Your task to perform on an android device: Play the last video I watched on Youtube Image 0: 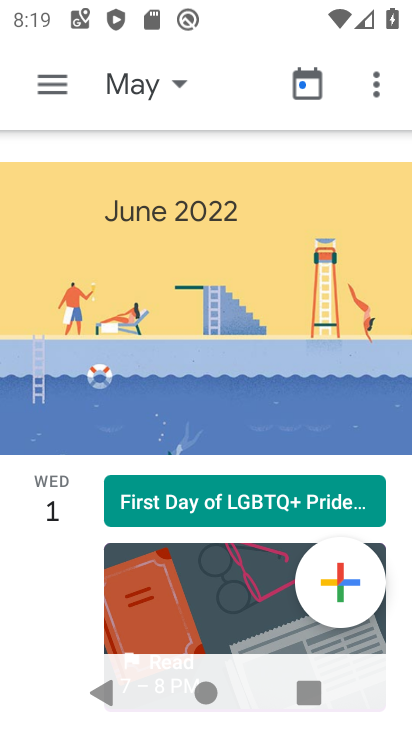
Step 0: press home button
Your task to perform on an android device: Play the last video I watched on Youtube Image 1: 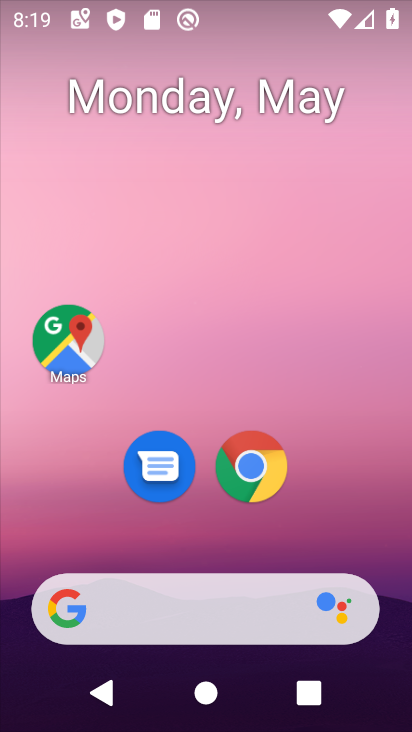
Step 1: drag from (245, 657) to (316, 150)
Your task to perform on an android device: Play the last video I watched on Youtube Image 2: 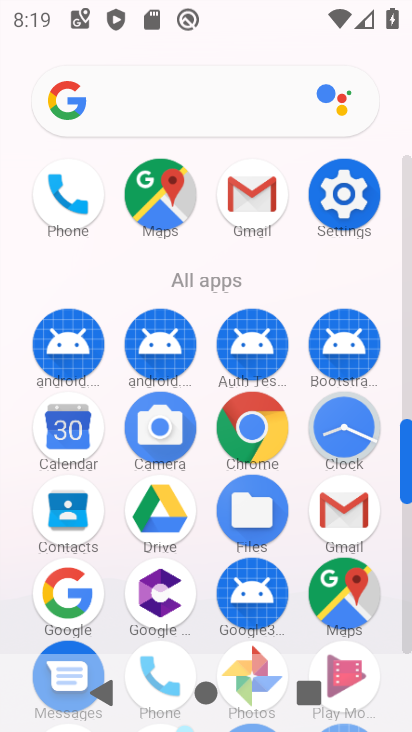
Step 2: drag from (115, 555) to (141, 225)
Your task to perform on an android device: Play the last video I watched on Youtube Image 3: 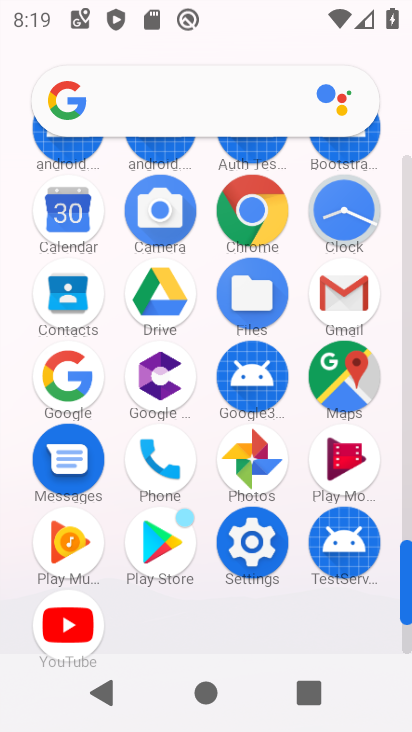
Step 3: click (77, 616)
Your task to perform on an android device: Play the last video I watched on Youtube Image 4: 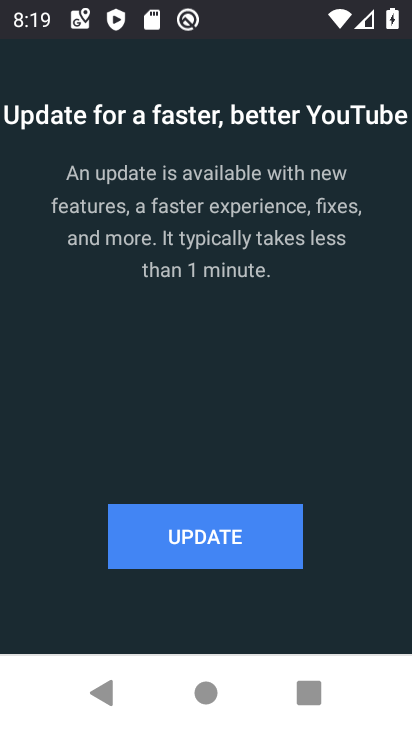
Step 4: click (177, 542)
Your task to perform on an android device: Play the last video I watched on Youtube Image 5: 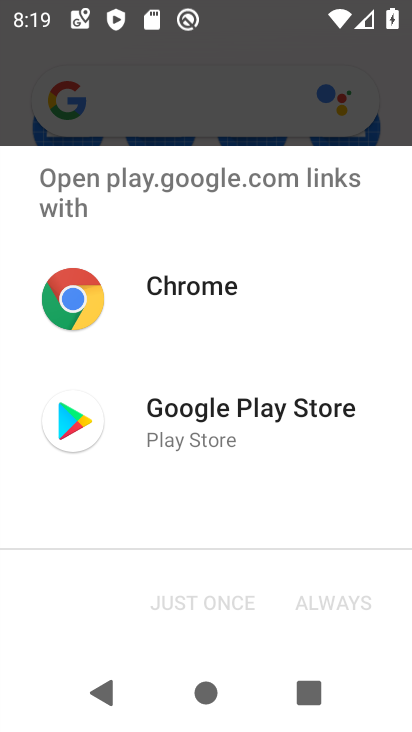
Step 5: click (190, 418)
Your task to perform on an android device: Play the last video I watched on Youtube Image 6: 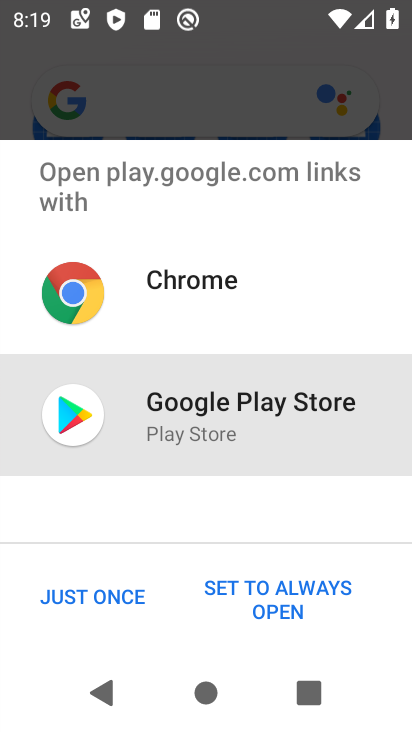
Step 6: click (93, 614)
Your task to perform on an android device: Play the last video I watched on Youtube Image 7: 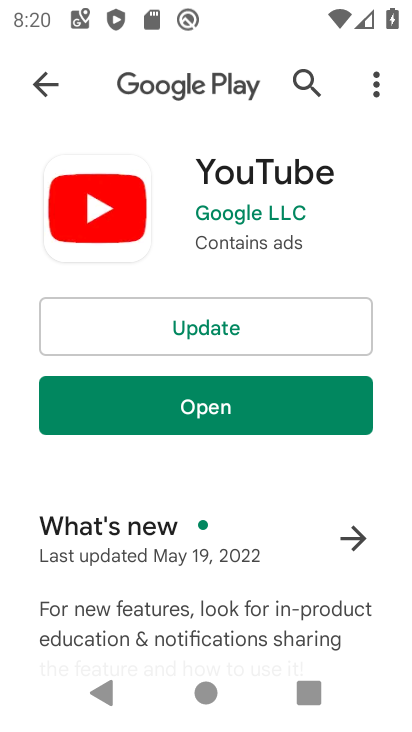
Step 7: click (193, 332)
Your task to perform on an android device: Play the last video I watched on Youtube Image 8: 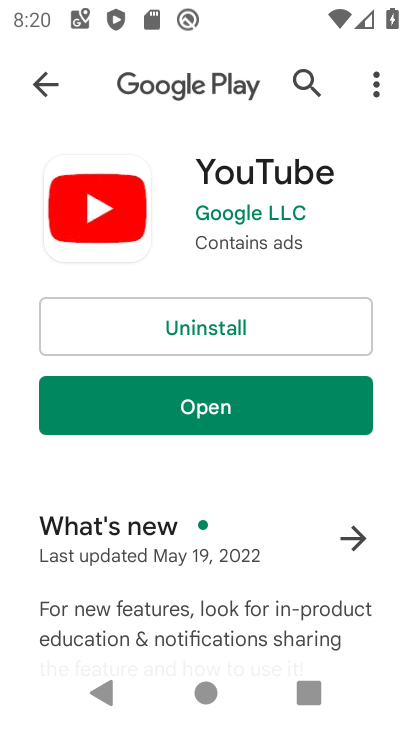
Step 8: click (204, 407)
Your task to perform on an android device: Play the last video I watched on Youtube Image 9: 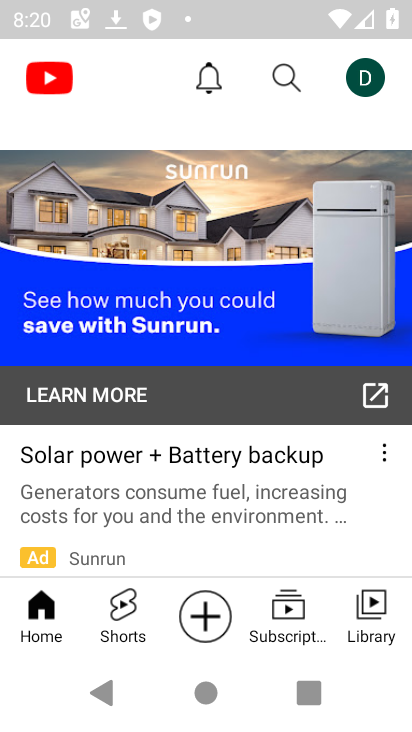
Step 9: click (377, 602)
Your task to perform on an android device: Play the last video I watched on Youtube Image 10: 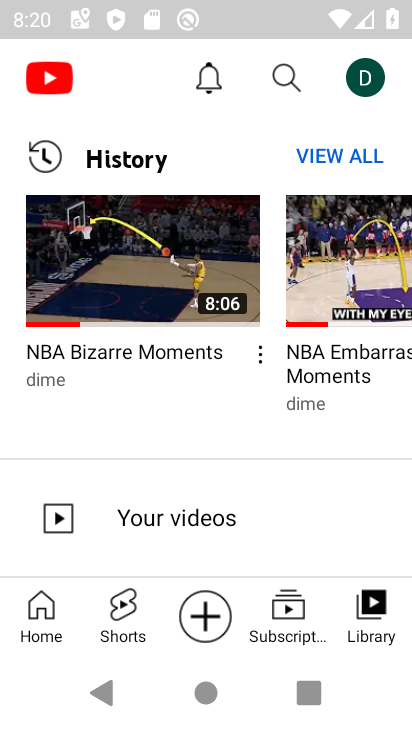
Step 10: click (146, 277)
Your task to perform on an android device: Play the last video I watched on Youtube Image 11: 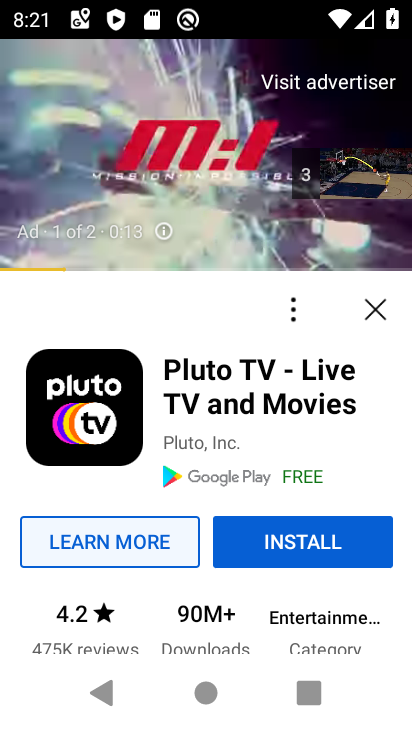
Step 11: task complete